Your task to perform on an android device: choose inbox layout in the gmail app Image 0: 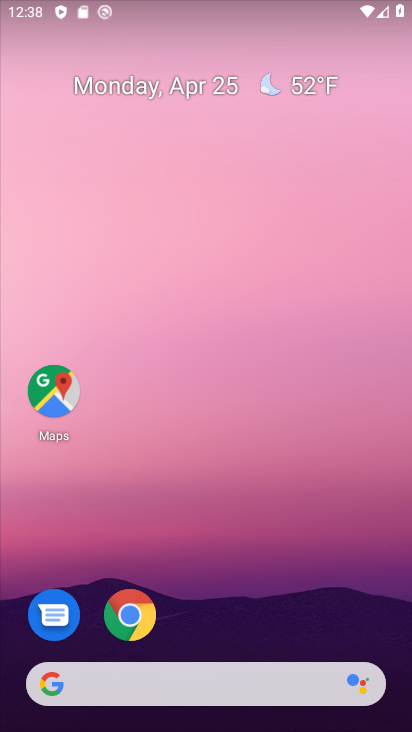
Step 0: drag from (239, 521) to (328, 49)
Your task to perform on an android device: choose inbox layout in the gmail app Image 1: 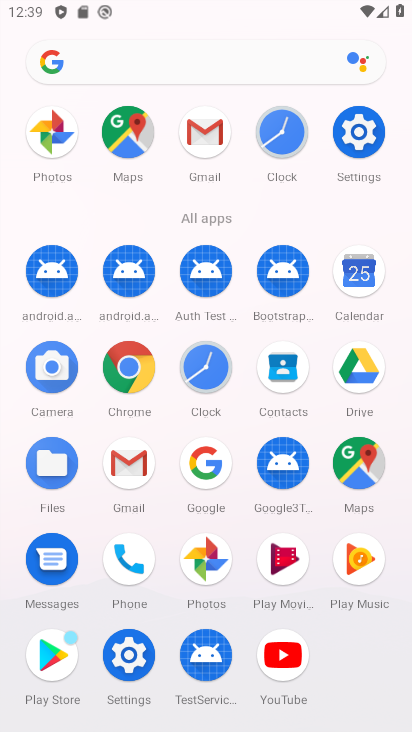
Step 1: click (204, 162)
Your task to perform on an android device: choose inbox layout in the gmail app Image 2: 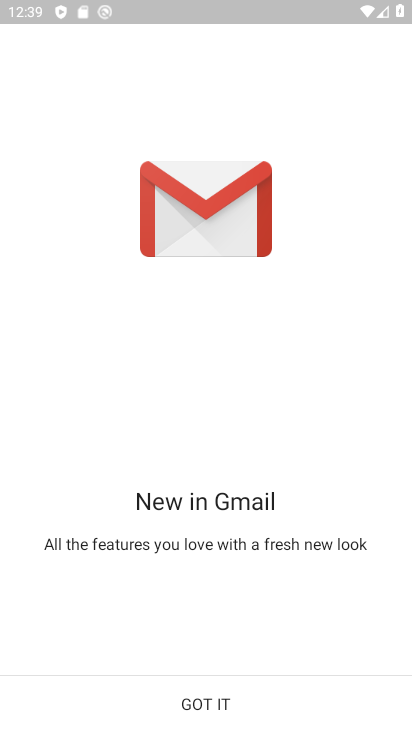
Step 2: click (202, 698)
Your task to perform on an android device: choose inbox layout in the gmail app Image 3: 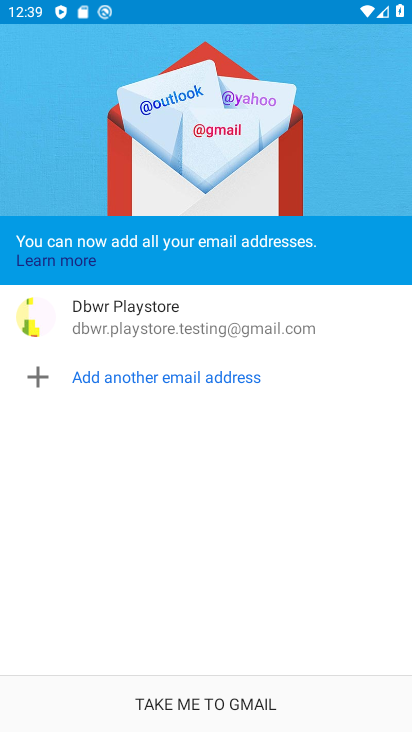
Step 3: click (216, 699)
Your task to perform on an android device: choose inbox layout in the gmail app Image 4: 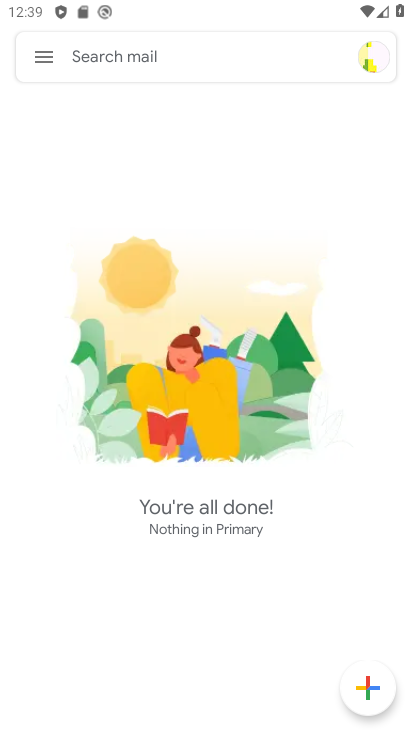
Step 4: click (48, 61)
Your task to perform on an android device: choose inbox layout in the gmail app Image 5: 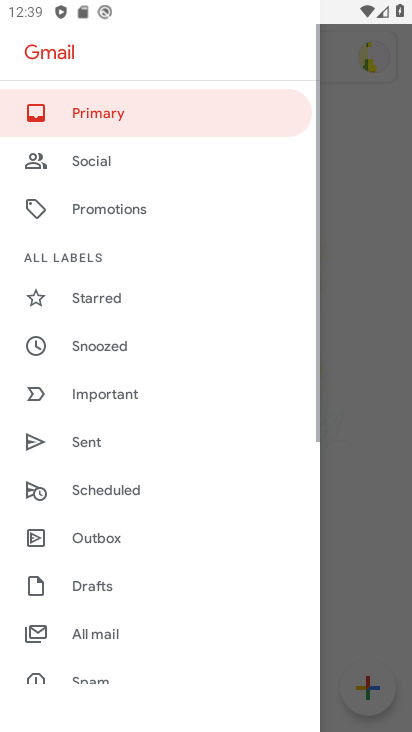
Step 5: drag from (121, 602) to (250, 172)
Your task to perform on an android device: choose inbox layout in the gmail app Image 6: 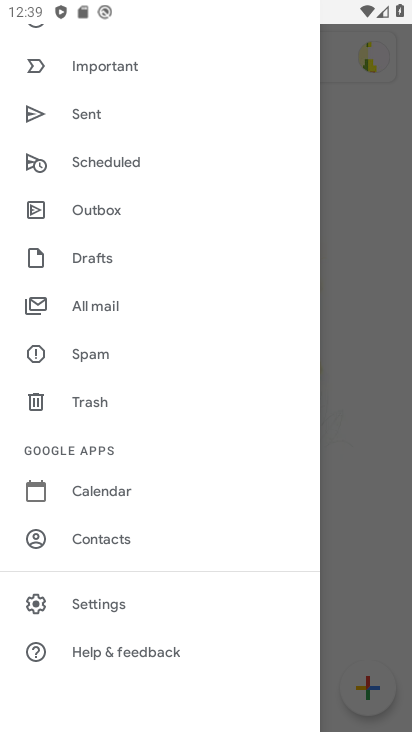
Step 6: click (132, 604)
Your task to perform on an android device: choose inbox layout in the gmail app Image 7: 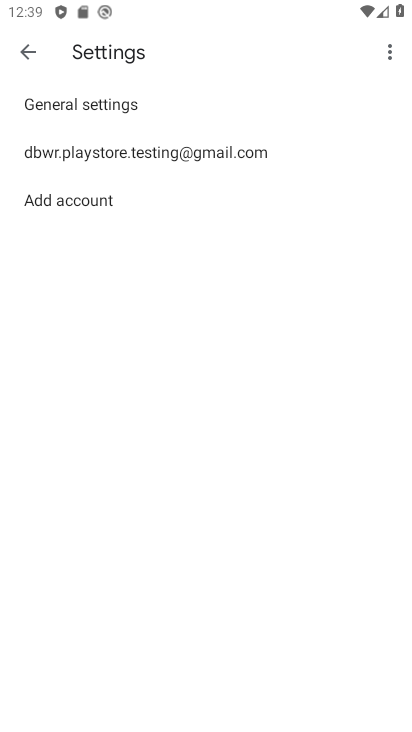
Step 7: click (190, 158)
Your task to perform on an android device: choose inbox layout in the gmail app Image 8: 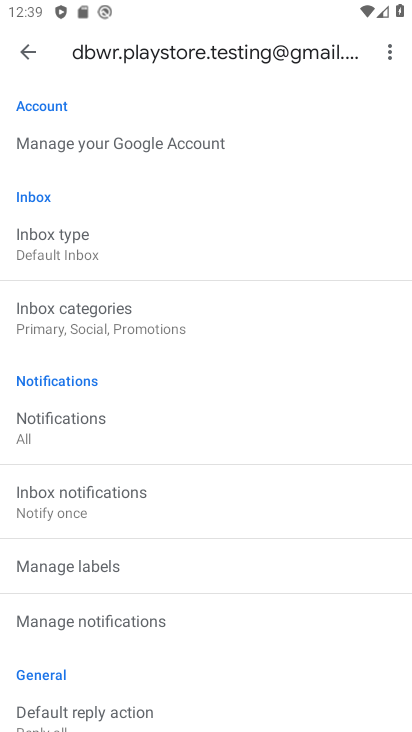
Step 8: click (138, 256)
Your task to perform on an android device: choose inbox layout in the gmail app Image 9: 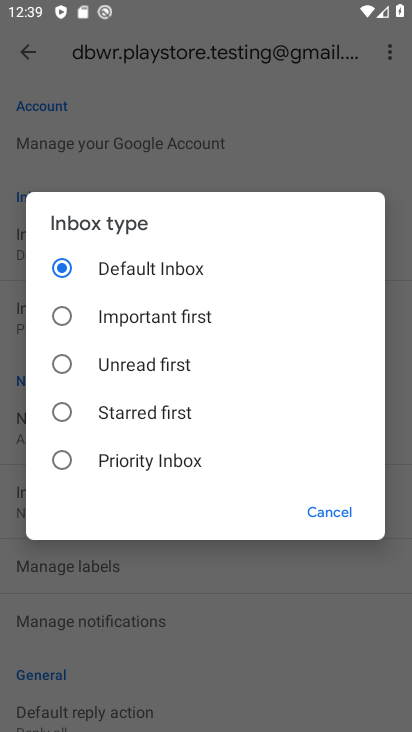
Step 9: click (174, 460)
Your task to perform on an android device: choose inbox layout in the gmail app Image 10: 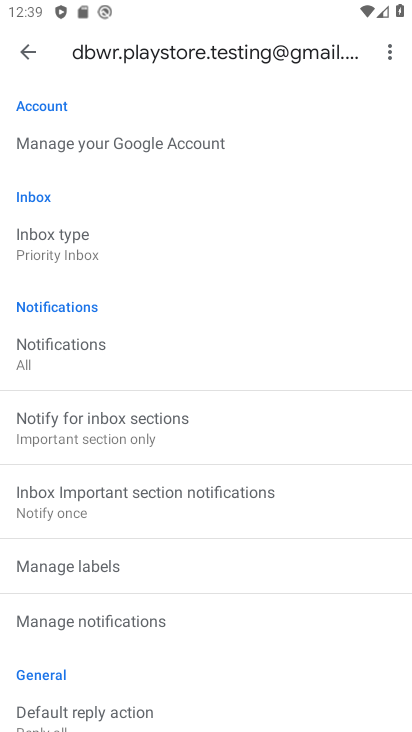
Step 10: task complete